Your task to perform on an android device: turn off data saver in the chrome app Image 0: 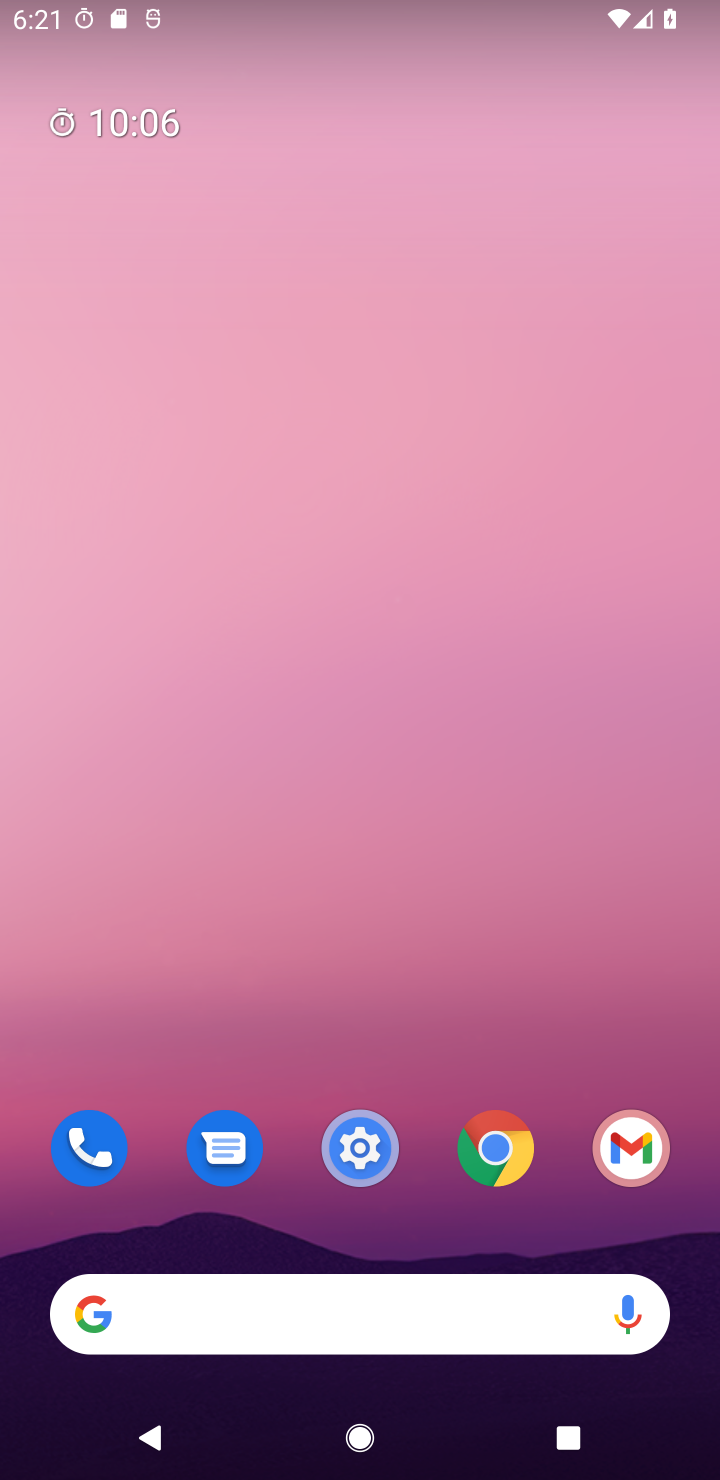
Step 0: click (512, 1157)
Your task to perform on an android device: turn off data saver in the chrome app Image 1: 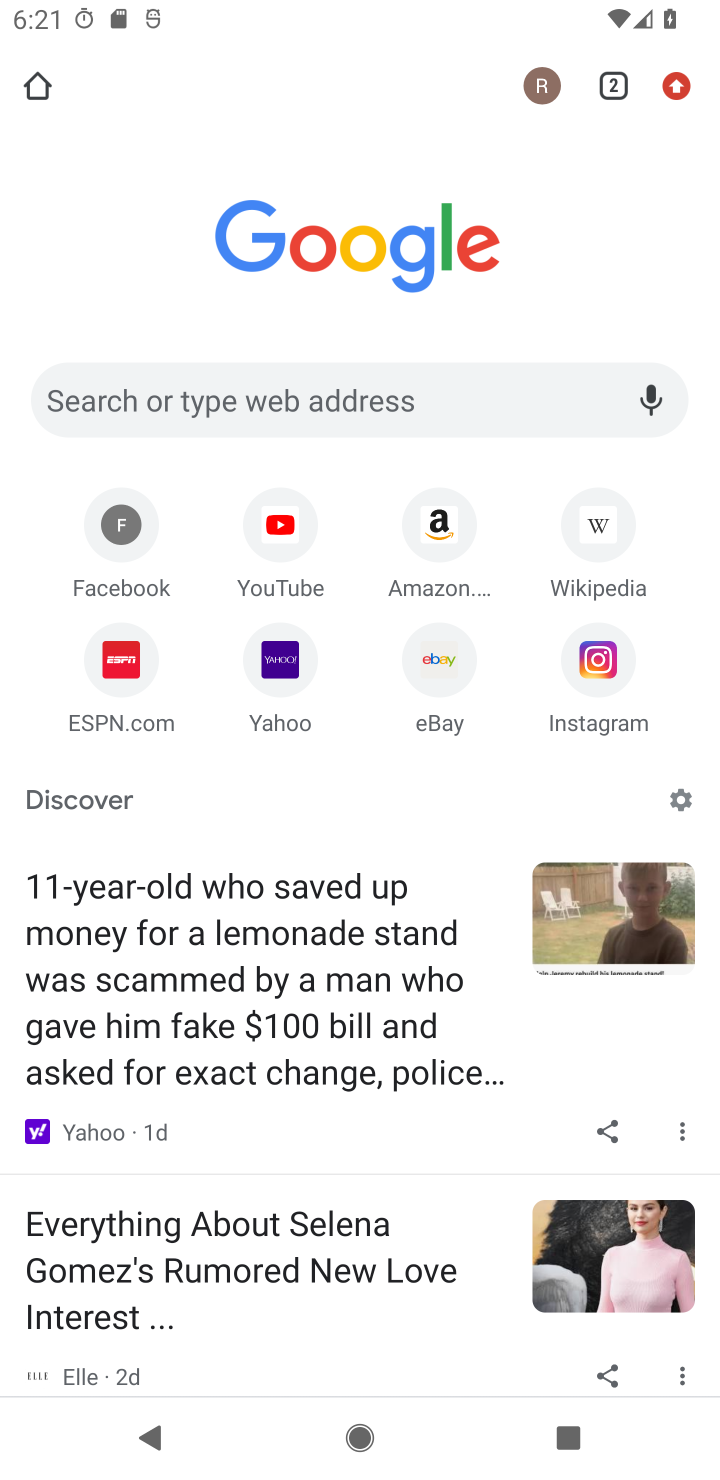
Step 1: click (671, 73)
Your task to perform on an android device: turn off data saver in the chrome app Image 2: 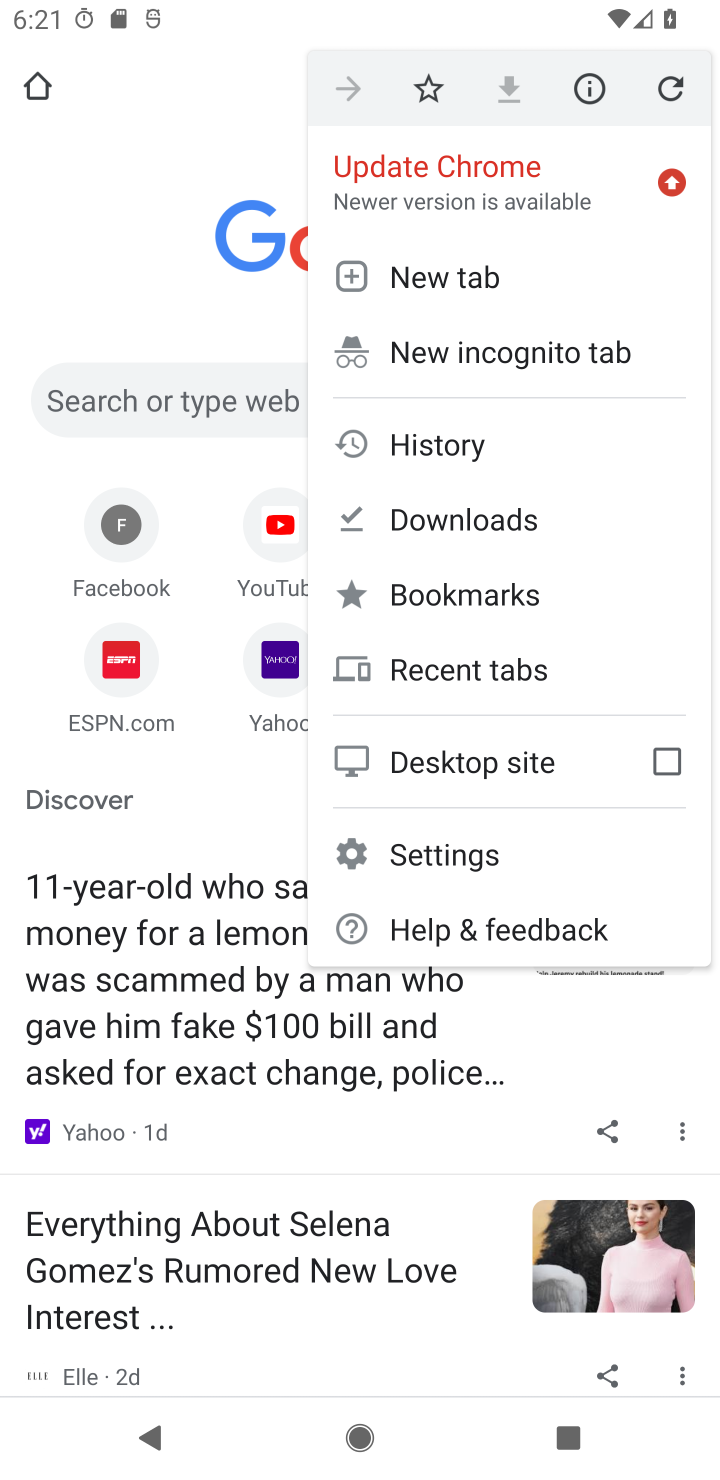
Step 2: click (479, 843)
Your task to perform on an android device: turn off data saver in the chrome app Image 3: 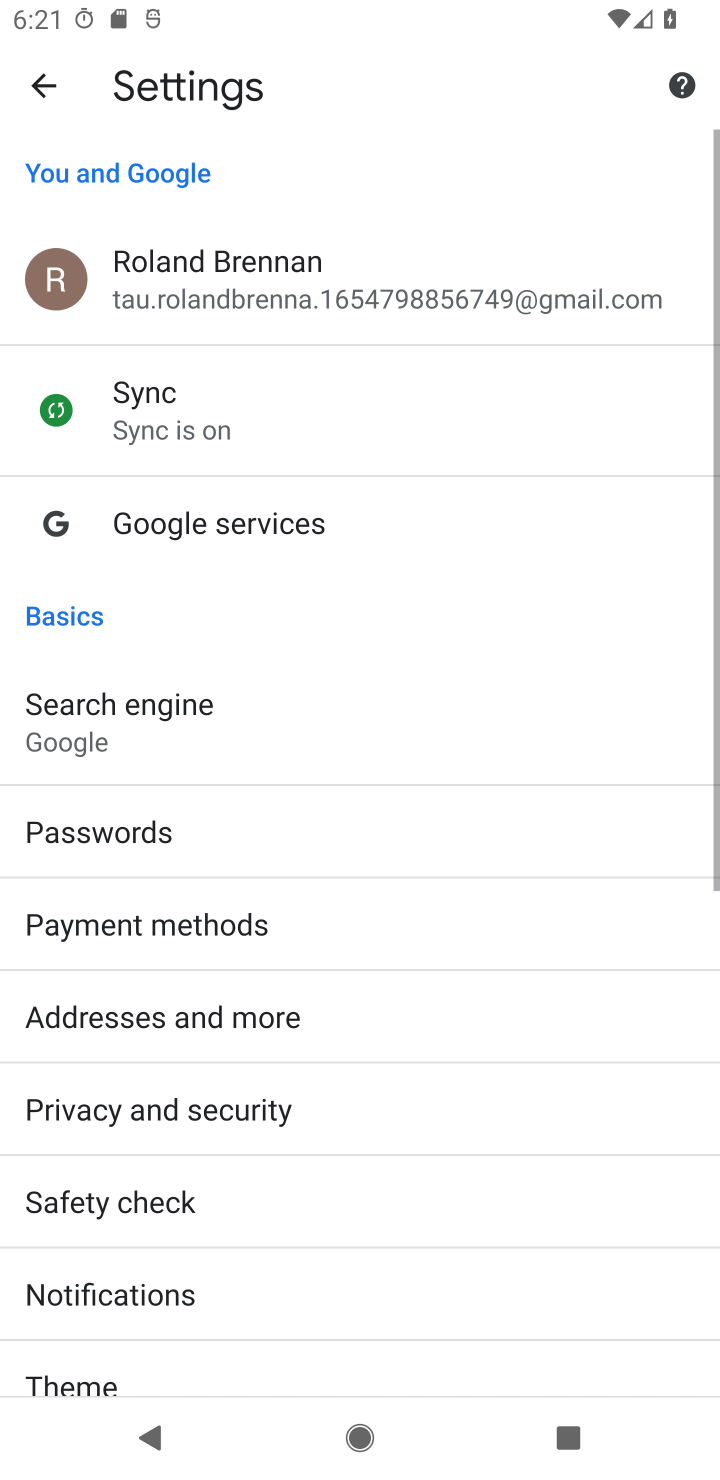
Step 3: drag from (149, 1294) to (195, 646)
Your task to perform on an android device: turn off data saver in the chrome app Image 4: 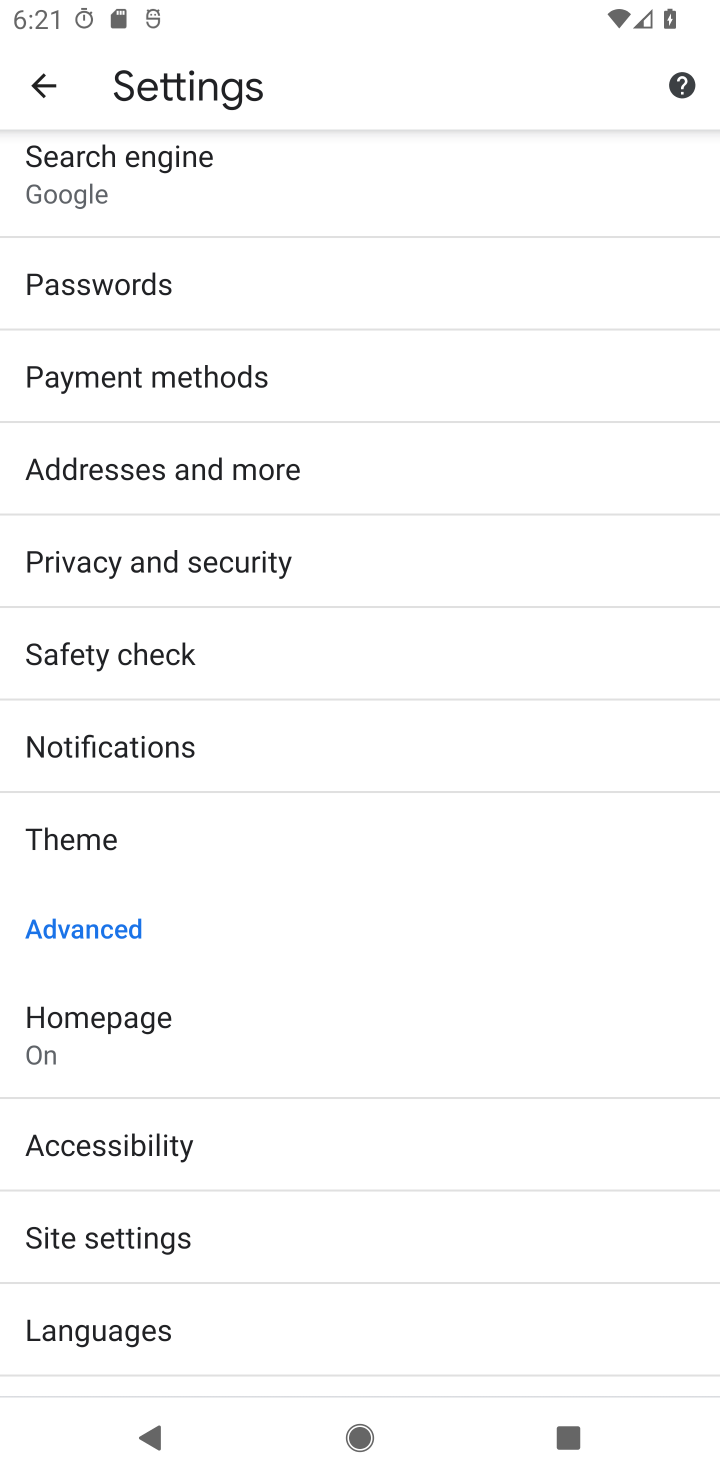
Step 4: drag from (195, 1236) to (234, 814)
Your task to perform on an android device: turn off data saver in the chrome app Image 5: 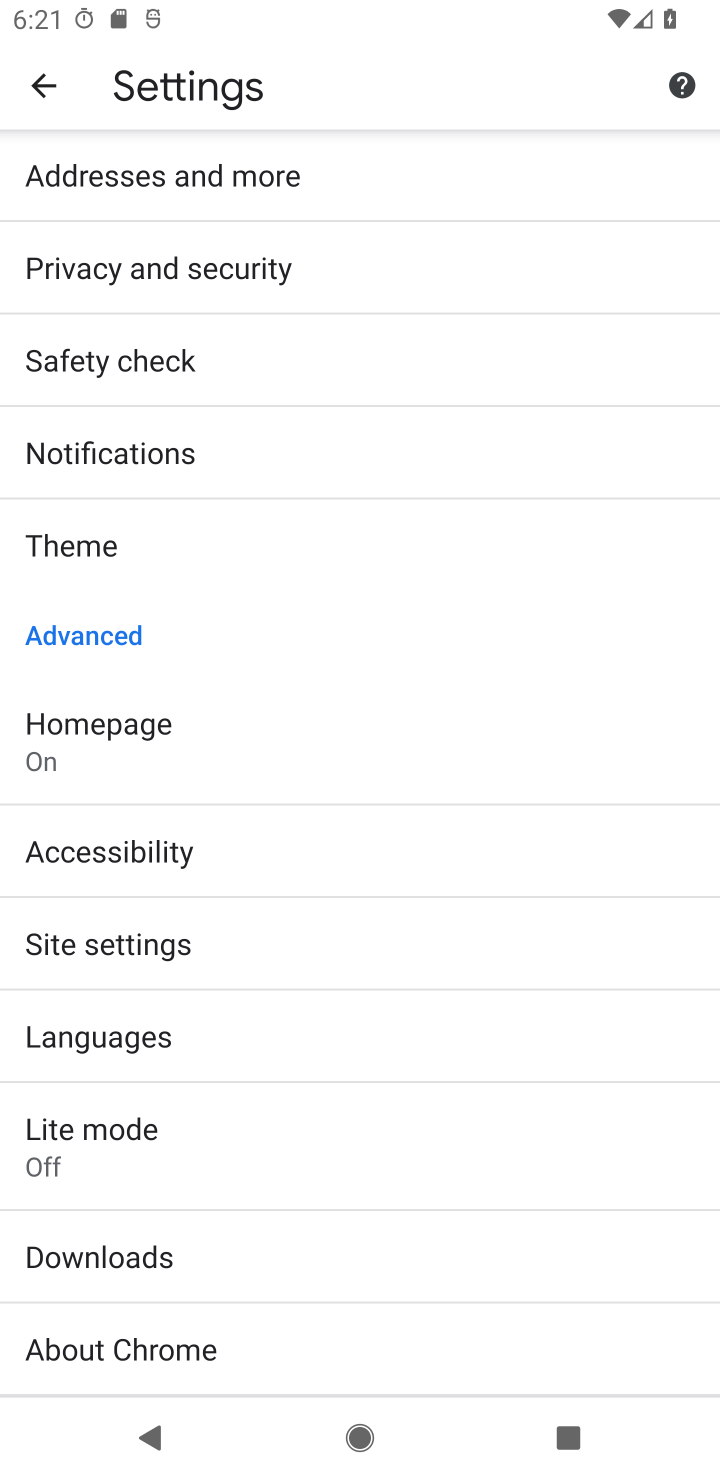
Step 5: click (101, 1159)
Your task to perform on an android device: turn off data saver in the chrome app Image 6: 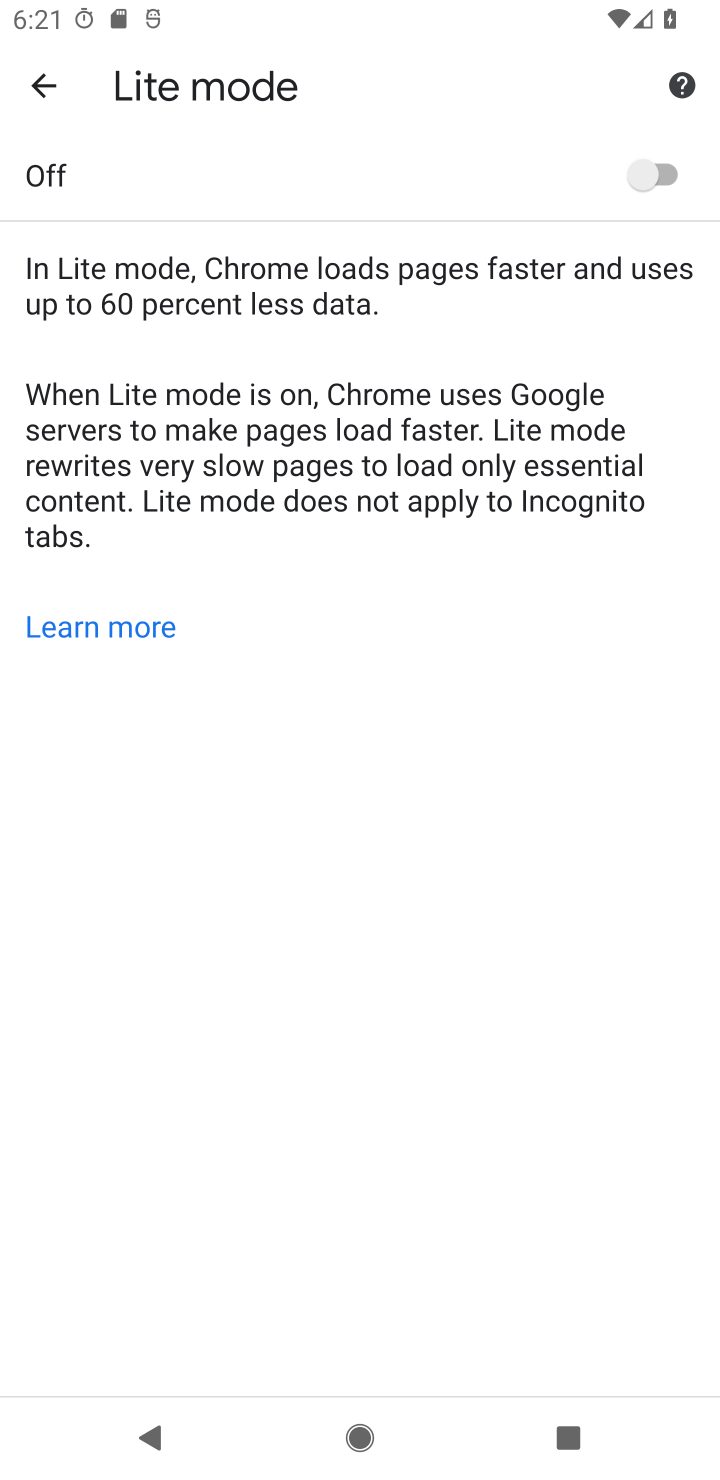
Step 6: task complete